Your task to perform on an android device: see sites visited before in the chrome app Image 0: 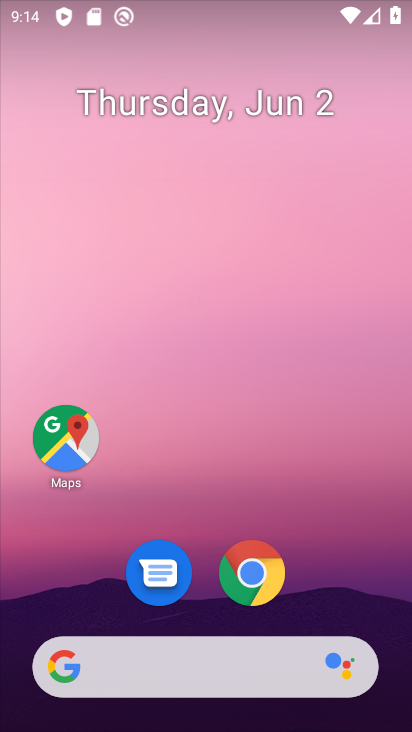
Step 0: click (255, 572)
Your task to perform on an android device: see sites visited before in the chrome app Image 1: 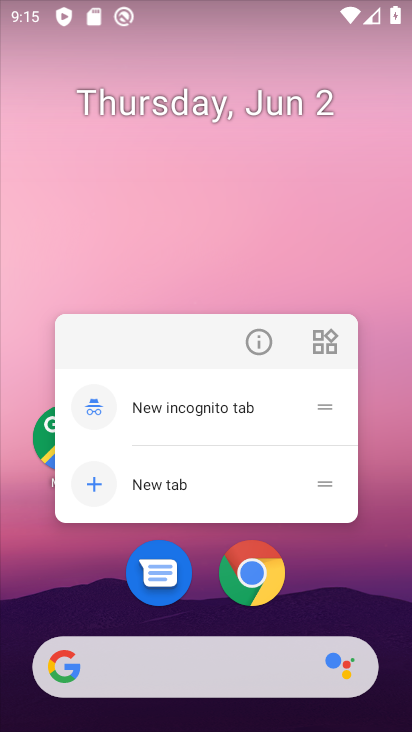
Step 1: click (253, 574)
Your task to perform on an android device: see sites visited before in the chrome app Image 2: 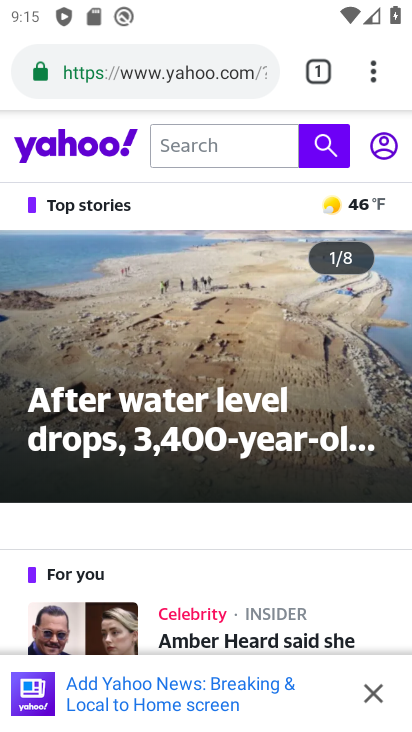
Step 2: task complete